Your task to perform on an android device: Open calendar and show me the second week of next month Image 0: 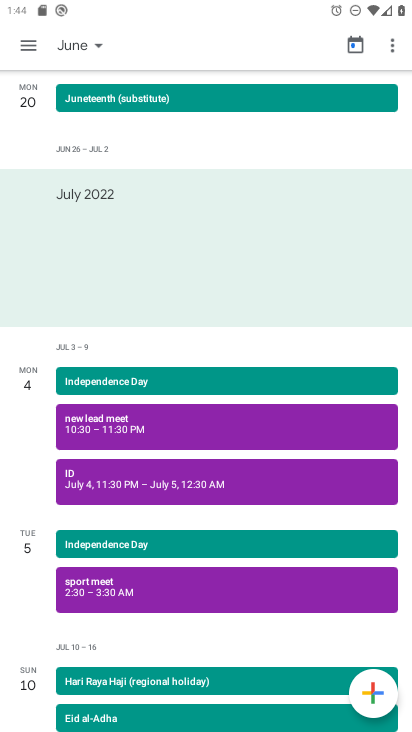
Step 0: press home button
Your task to perform on an android device: Open calendar and show me the second week of next month Image 1: 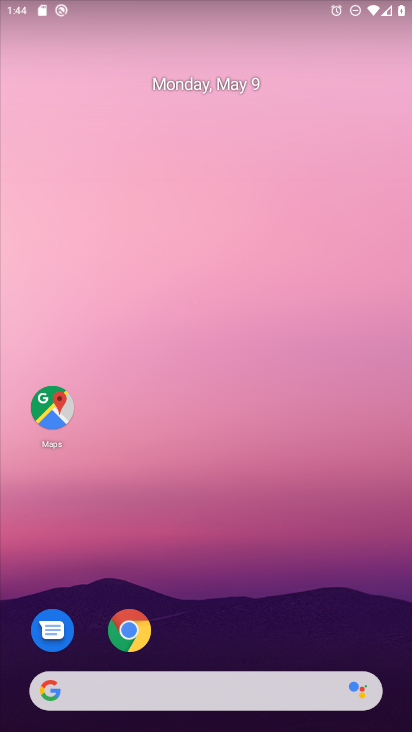
Step 1: drag from (266, 716) to (266, 352)
Your task to perform on an android device: Open calendar and show me the second week of next month Image 2: 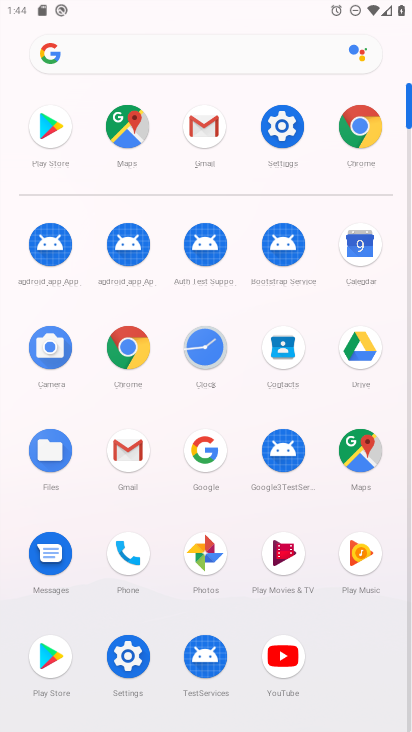
Step 2: click (346, 243)
Your task to perform on an android device: Open calendar and show me the second week of next month Image 3: 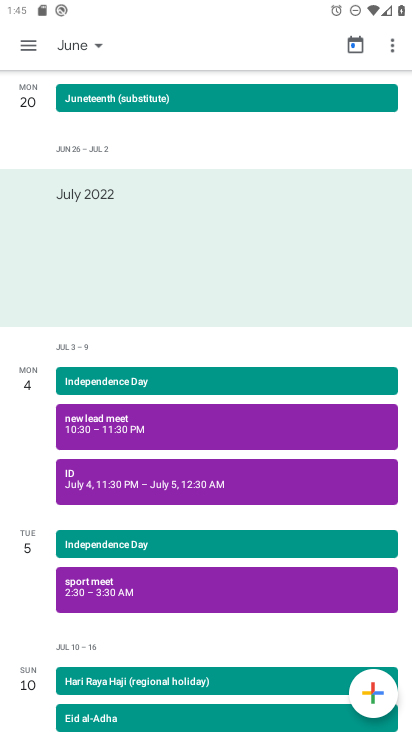
Step 3: click (15, 46)
Your task to perform on an android device: Open calendar and show me the second week of next month Image 4: 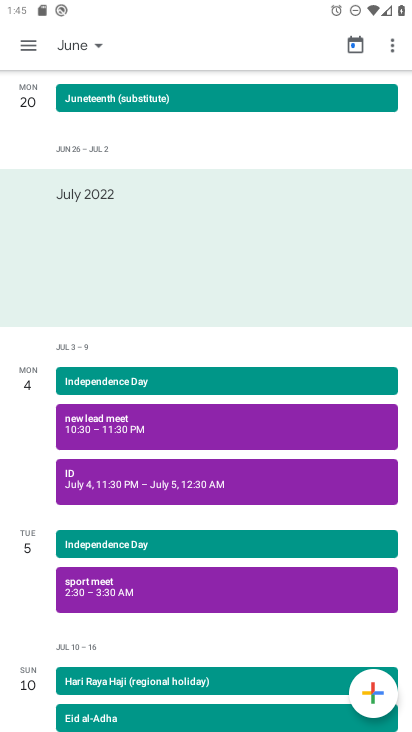
Step 4: click (27, 61)
Your task to perform on an android device: Open calendar and show me the second week of next month Image 5: 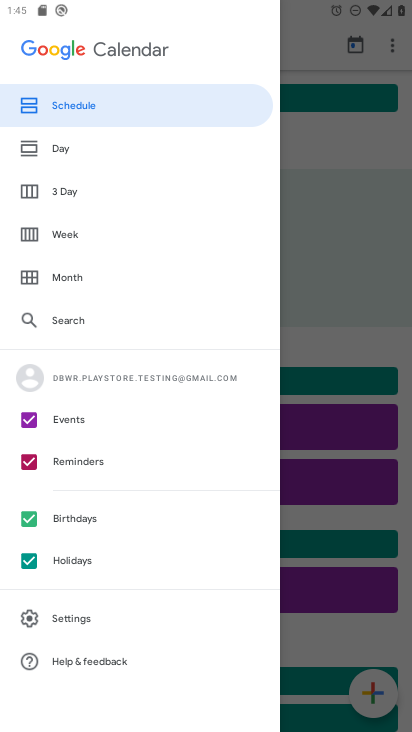
Step 5: click (63, 275)
Your task to perform on an android device: Open calendar and show me the second week of next month Image 6: 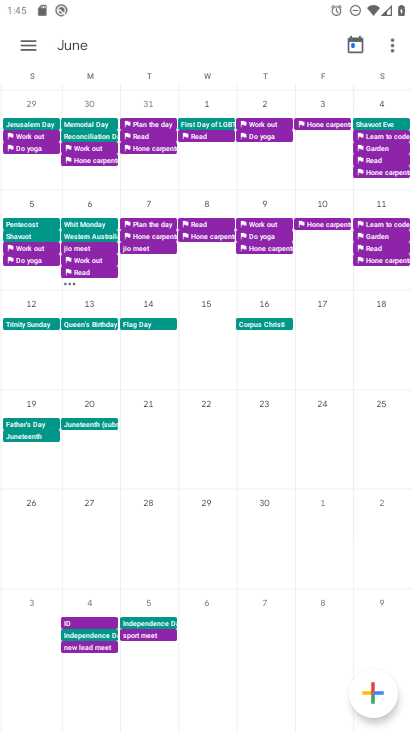
Step 6: click (82, 187)
Your task to perform on an android device: Open calendar and show me the second week of next month Image 7: 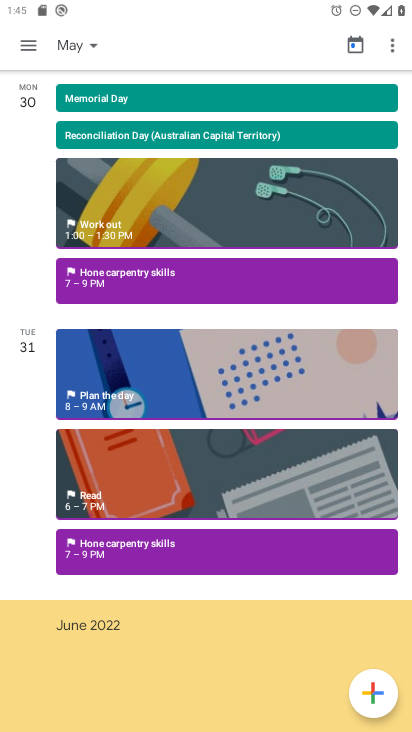
Step 7: task complete